Your task to perform on an android device: open a new tab in the chrome app Image 0: 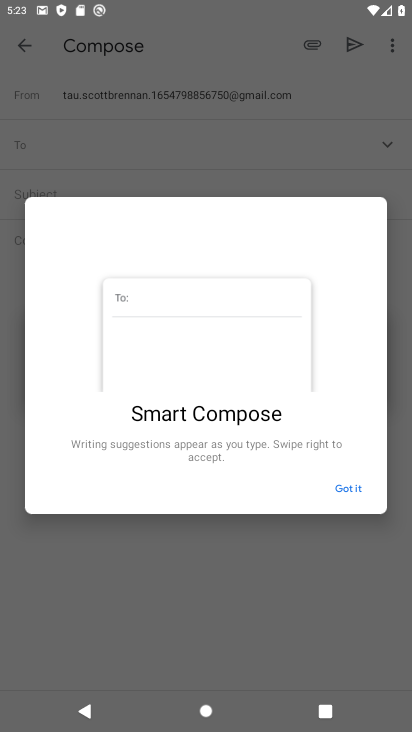
Step 0: press home button
Your task to perform on an android device: open a new tab in the chrome app Image 1: 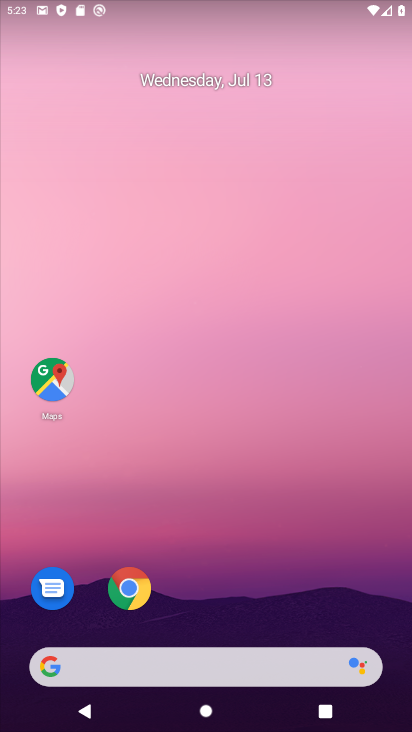
Step 1: click (46, 388)
Your task to perform on an android device: open a new tab in the chrome app Image 2: 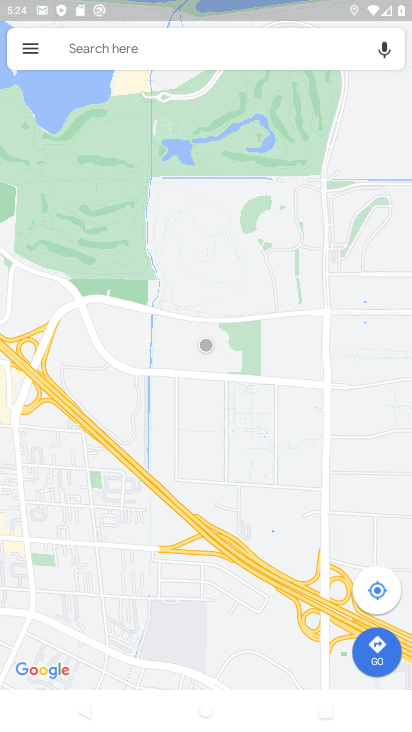
Step 2: task complete